Your task to perform on an android device: Go to accessibility settings Image 0: 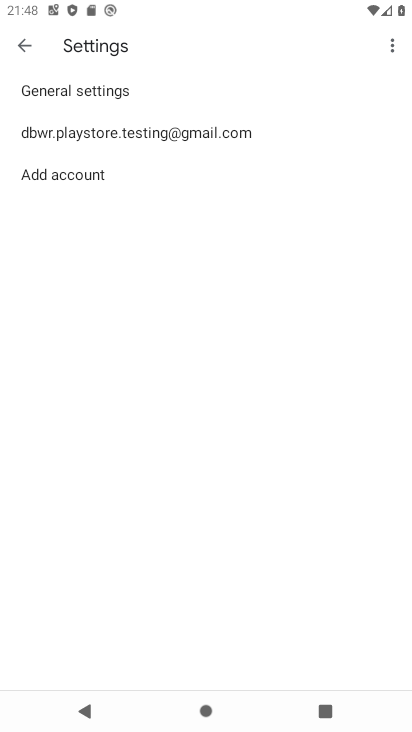
Step 0: press home button
Your task to perform on an android device: Go to accessibility settings Image 1: 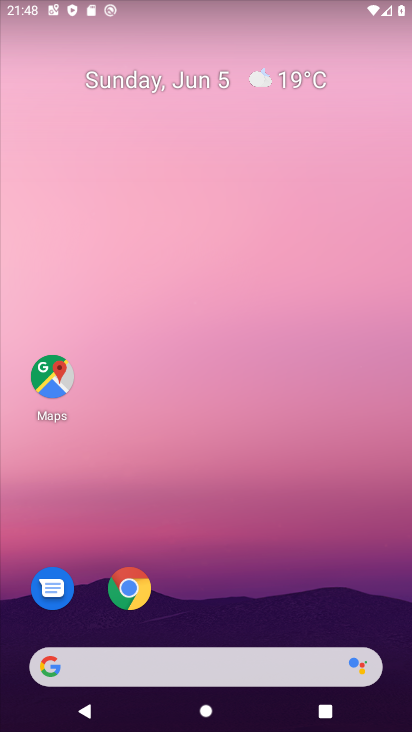
Step 1: drag from (357, 584) to (361, 177)
Your task to perform on an android device: Go to accessibility settings Image 2: 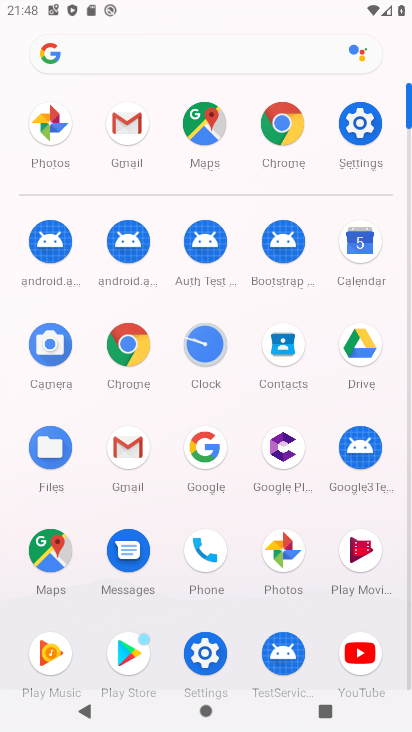
Step 2: click (357, 134)
Your task to perform on an android device: Go to accessibility settings Image 3: 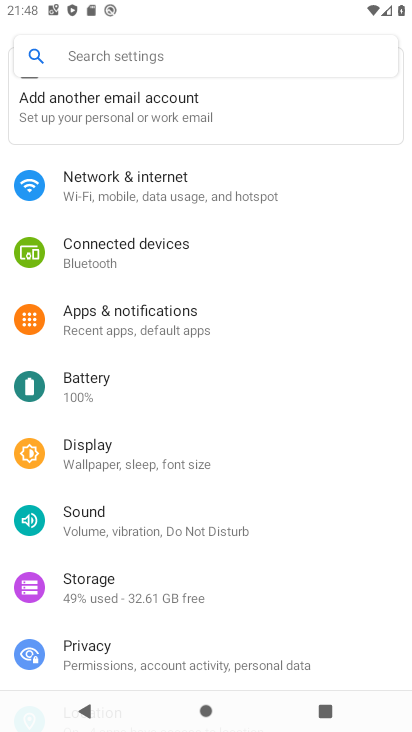
Step 3: drag from (332, 285) to (334, 422)
Your task to perform on an android device: Go to accessibility settings Image 4: 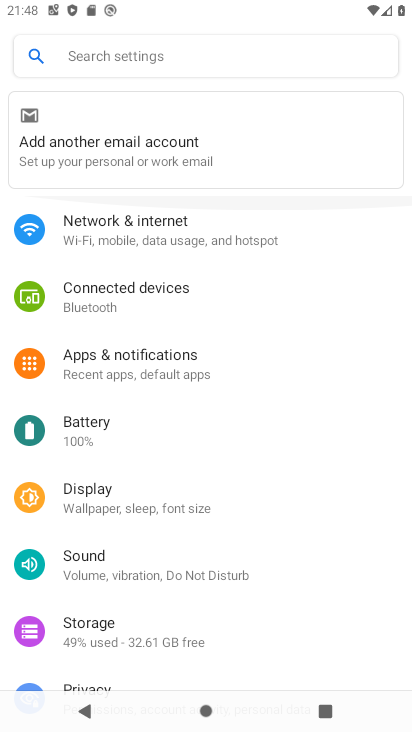
Step 4: drag from (334, 429) to (332, 341)
Your task to perform on an android device: Go to accessibility settings Image 5: 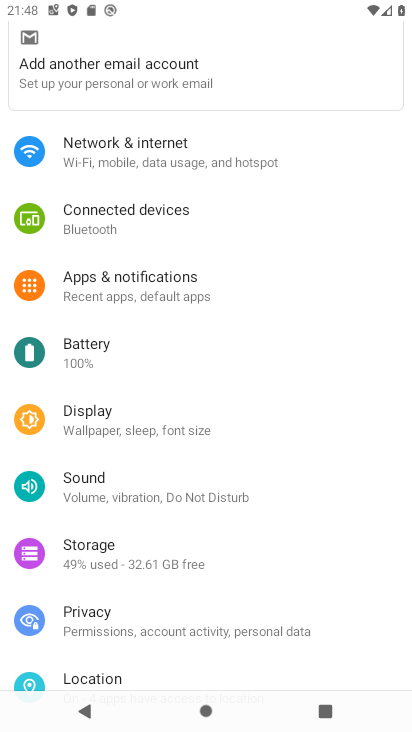
Step 5: drag from (338, 403) to (337, 335)
Your task to perform on an android device: Go to accessibility settings Image 6: 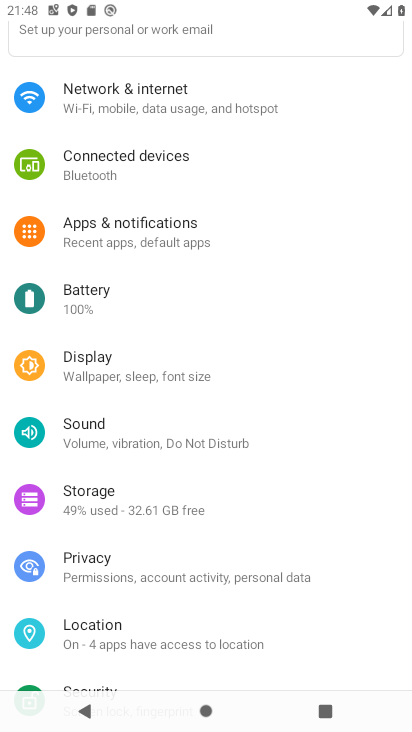
Step 6: drag from (332, 409) to (347, 350)
Your task to perform on an android device: Go to accessibility settings Image 7: 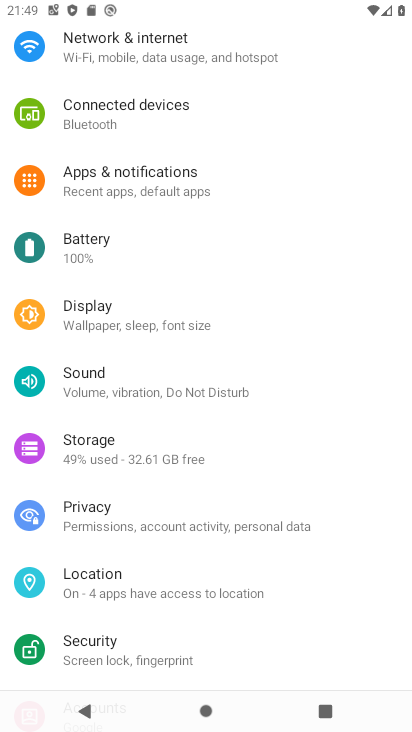
Step 7: drag from (347, 413) to (353, 362)
Your task to perform on an android device: Go to accessibility settings Image 8: 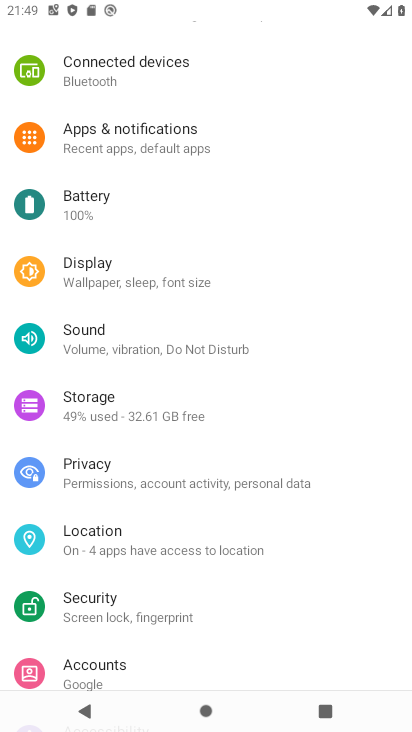
Step 8: drag from (354, 421) to (354, 360)
Your task to perform on an android device: Go to accessibility settings Image 9: 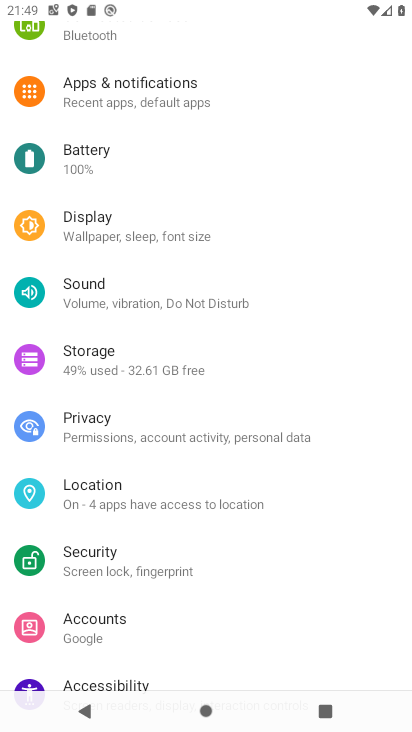
Step 9: drag from (348, 426) to (360, 373)
Your task to perform on an android device: Go to accessibility settings Image 10: 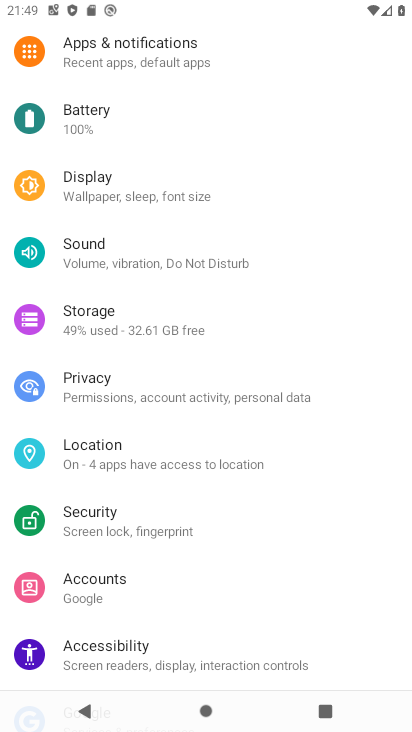
Step 10: drag from (353, 441) to (366, 375)
Your task to perform on an android device: Go to accessibility settings Image 11: 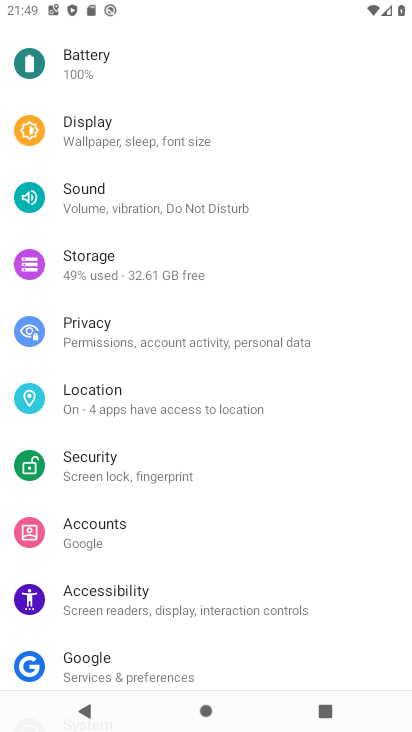
Step 11: drag from (354, 436) to (359, 350)
Your task to perform on an android device: Go to accessibility settings Image 12: 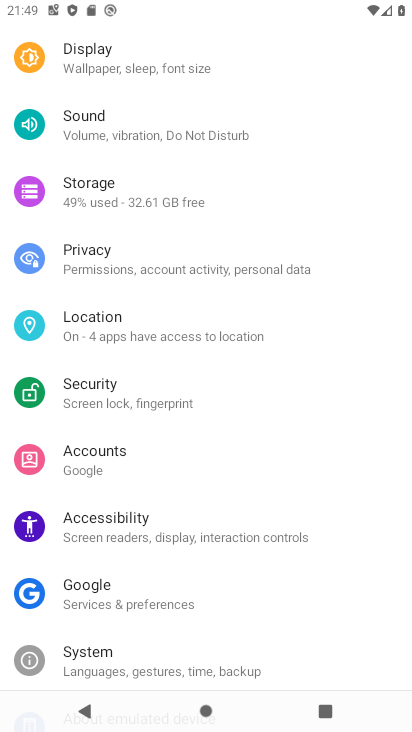
Step 12: drag from (341, 438) to (351, 346)
Your task to perform on an android device: Go to accessibility settings Image 13: 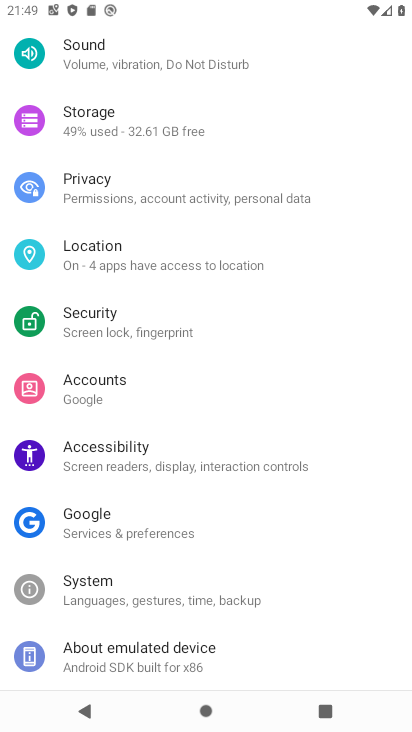
Step 13: drag from (352, 420) to (363, 326)
Your task to perform on an android device: Go to accessibility settings Image 14: 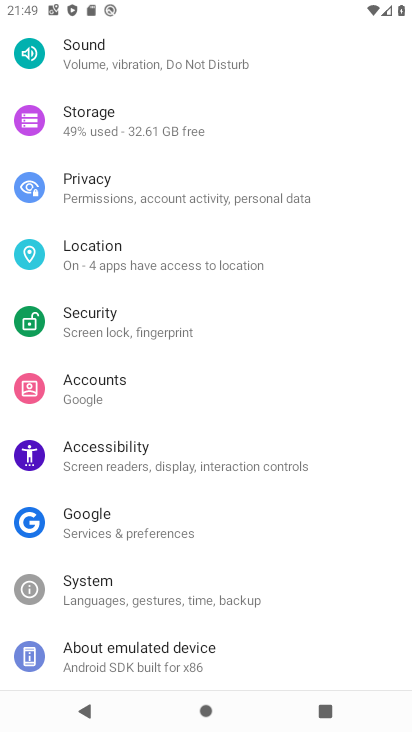
Step 14: click (303, 461)
Your task to perform on an android device: Go to accessibility settings Image 15: 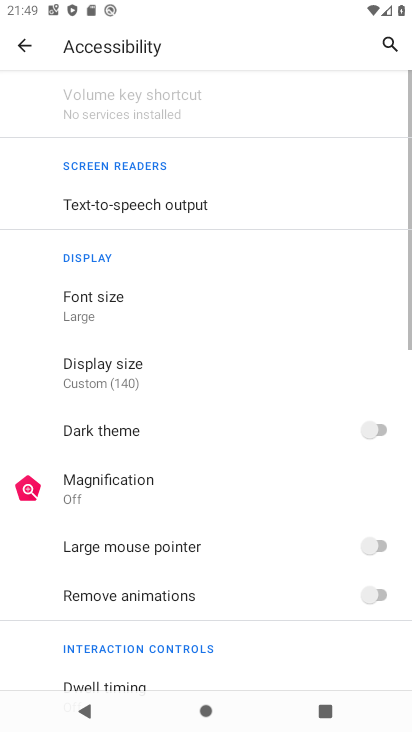
Step 15: task complete